Your task to perform on an android device: find photos in the google photos app Image 0: 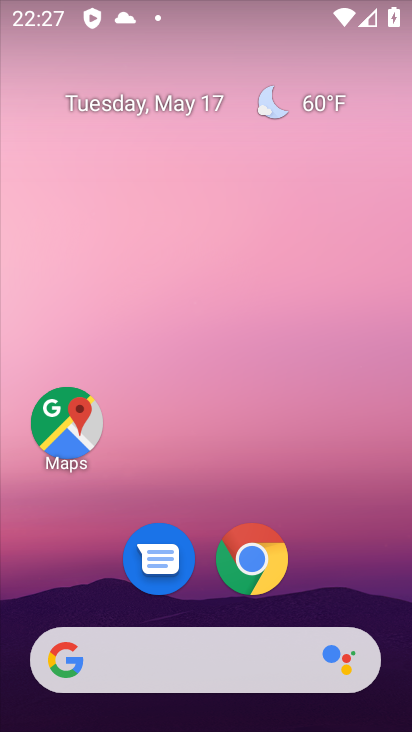
Step 0: drag from (351, 557) to (335, 128)
Your task to perform on an android device: find photos in the google photos app Image 1: 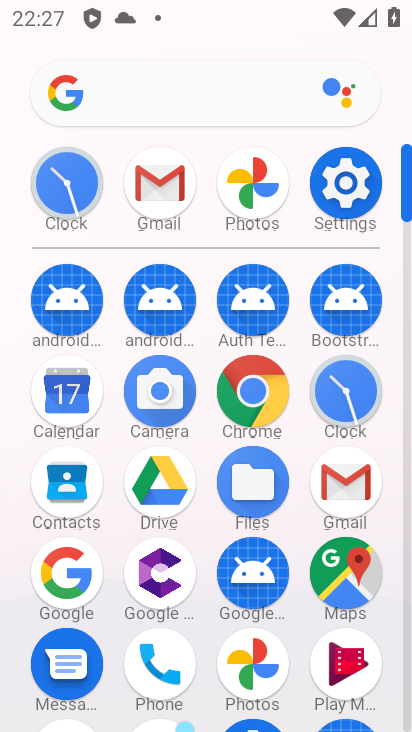
Step 1: click (265, 662)
Your task to perform on an android device: find photos in the google photos app Image 2: 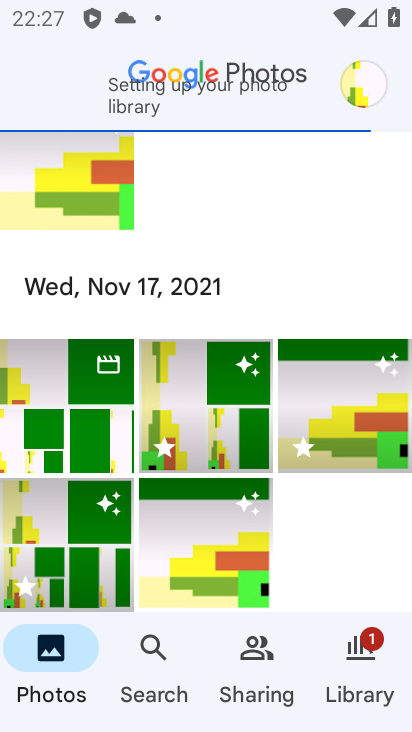
Step 2: task complete